Your task to perform on an android device: Open Google Chrome and open the bookmarks view Image 0: 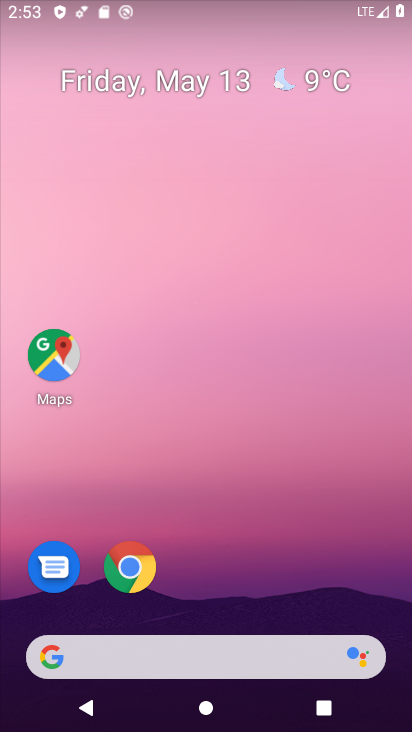
Step 0: click (138, 566)
Your task to perform on an android device: Open Google Chrome and open the bookmarks view Image 1: 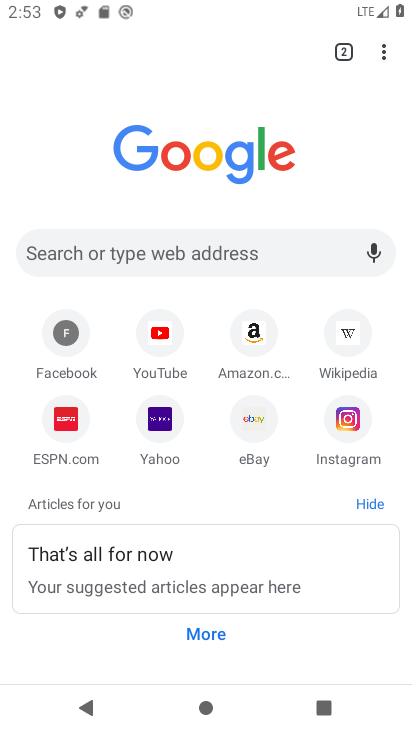
Step 1: task complete